Your task to perform on an android device: empty trash in google photos Image 0: 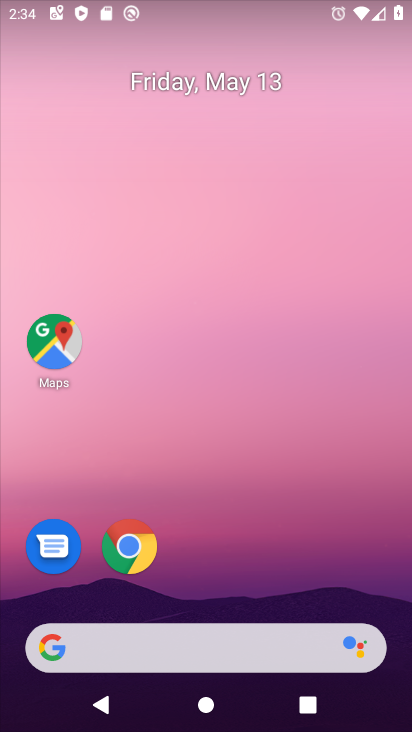
Step 0: drag from (250, 540) to (302, 78)
Your task to perform on an android device: empty trash in google photos Image 1: 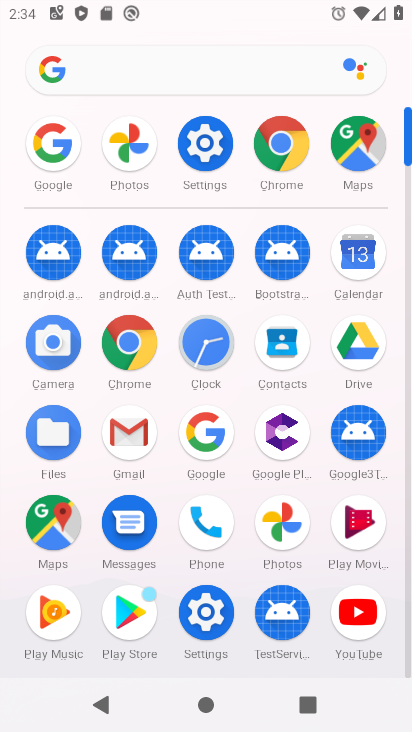
Step 1: click (265, 530)
Your task to perform on an android device: empty trash in google photos Image 2: 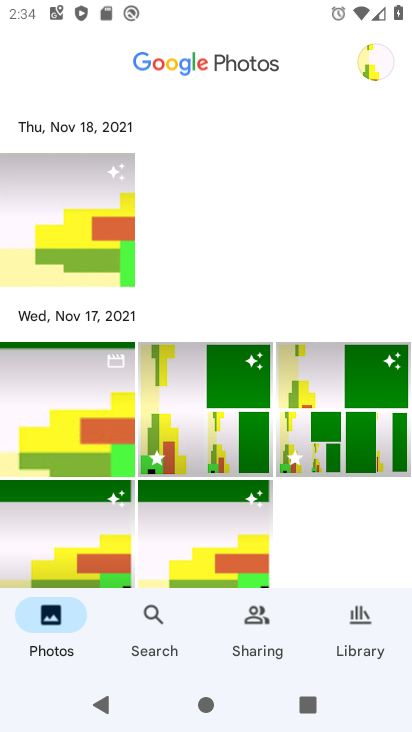
Step 2: click (368, 635)
Your task to perform on an android device: empty trash in google photos Image 3: 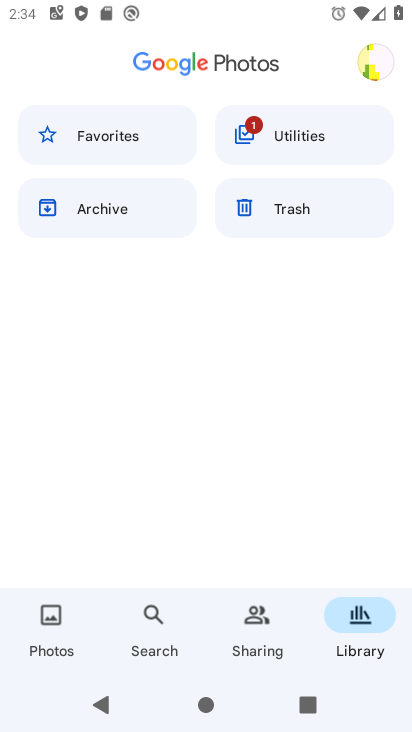
Step 3: click (291, 210)
Your task to perform on an android device: empty trash in google photos Image 4: 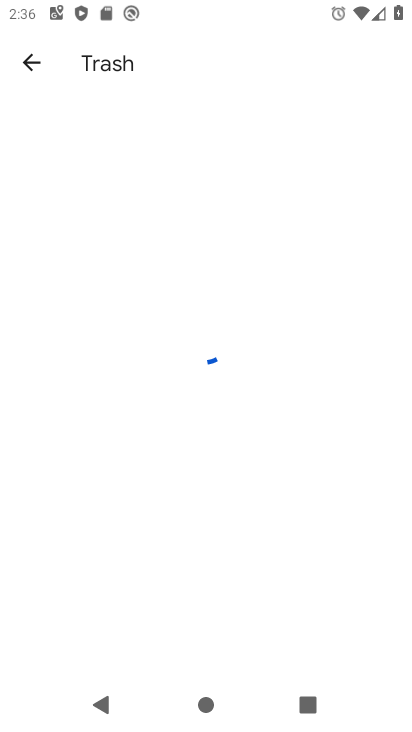
Step 4: task complete